Your task to perform on an android device: Find coffee shops on Maps Image 0: 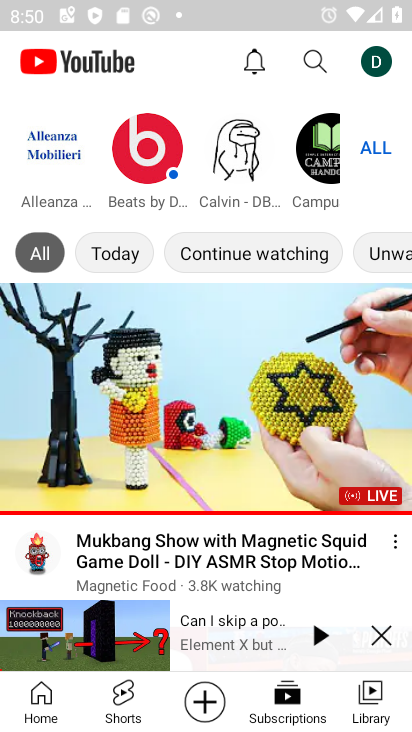
Step 0: press home button
Your task to perform on an android device: Find coffee shops on Maps Image 1: 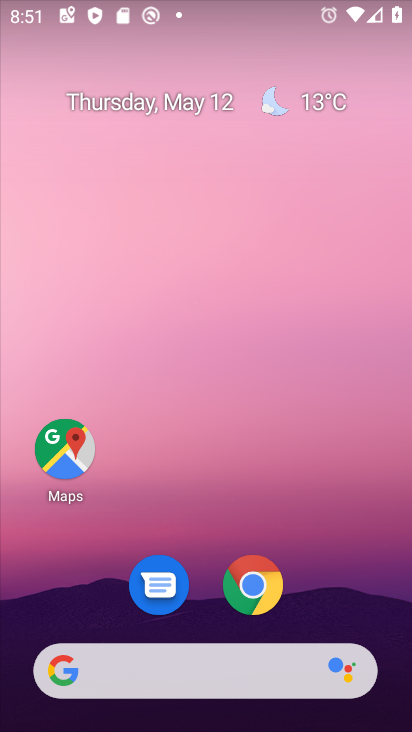
Step 1: click (60, 442)
Your task to perform on an android device: Find coffee shops on Maps Image 2: 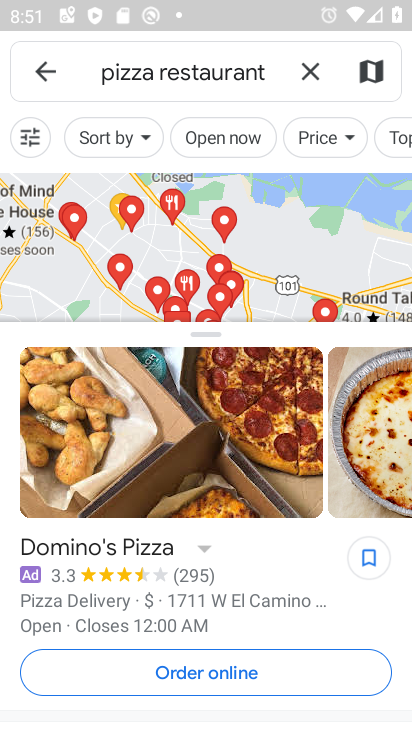
Step 2: click (313, 62)
Your task to perform on an android device: Find coffee shops on Maps Image 3: 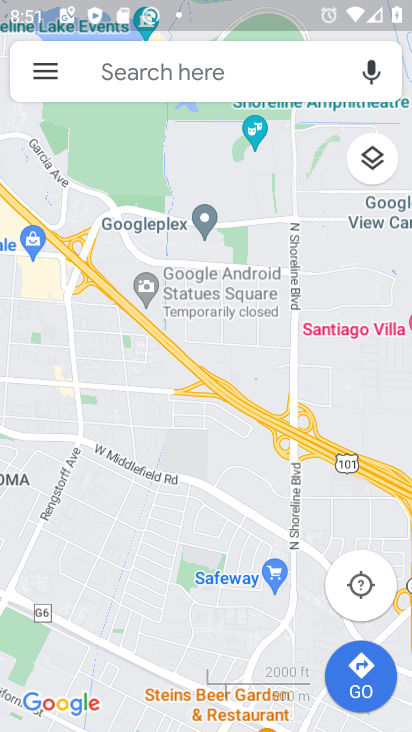
Step 3: click (202, 69)
Your task to perform on an android device: Find coffee shops on Maps Image 4: 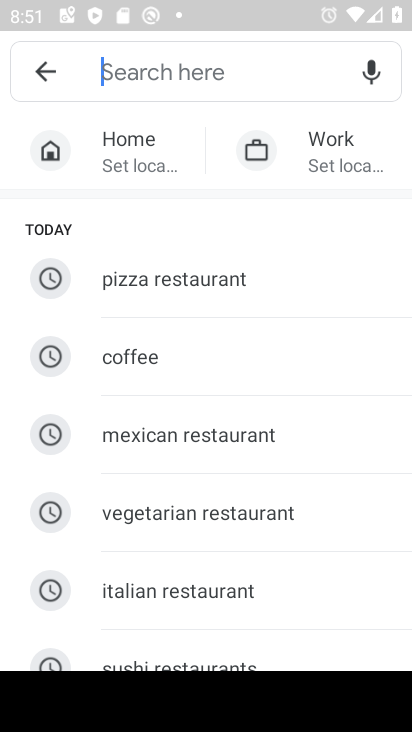
Step 4: click (178, 345)
Your task to perform on an android device: Find coffee shops on Maps Image 5: 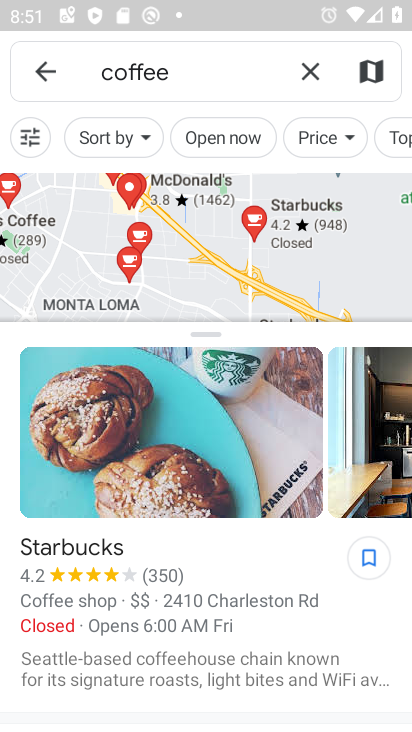
Step 5: task complete